Your task to perform on an android device: Open settings Image 0: 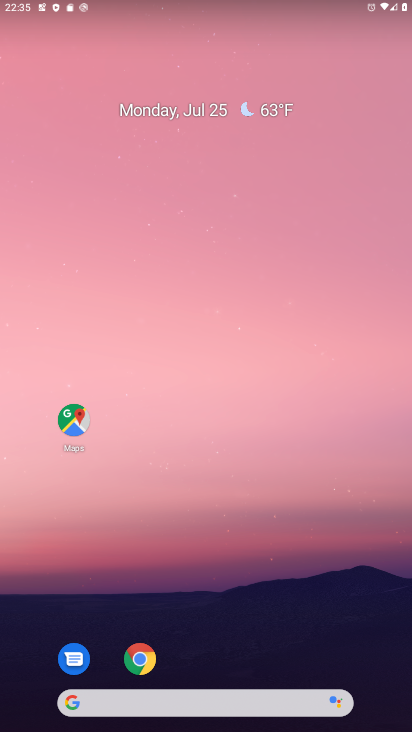
Step 0: drag from (214, 716) to (214, 178)
Your task to perform on an android device: Open settings Image 1: 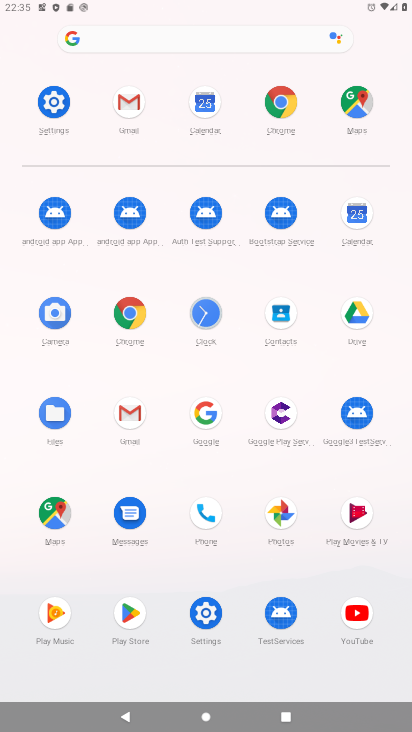
Step 1: click (54, 99)
Your task to perform on an android device: Open settings Image 2: 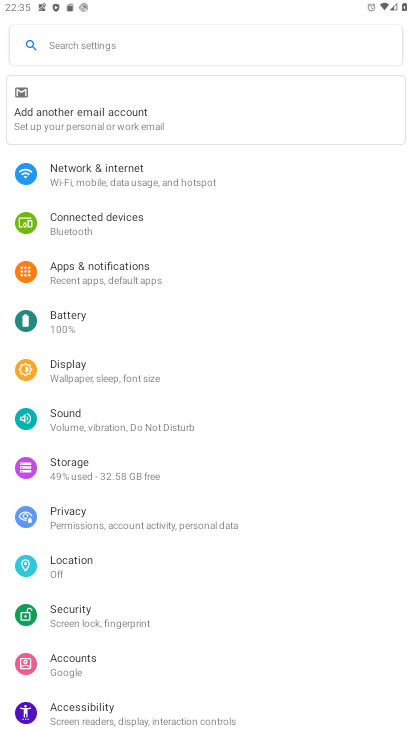
Step 2: task complete